Your task to perform on an android device: open wifi settings Image 0: 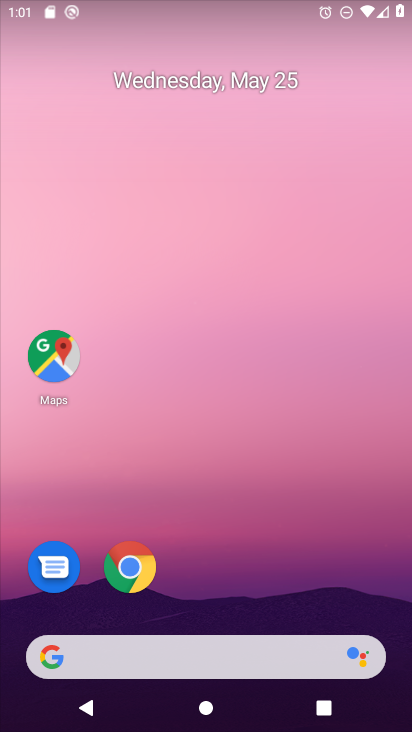
Step 0: drag from (380, 448) to (371, 153)
Your task to perform on an android device: open wifi settings Image 1: 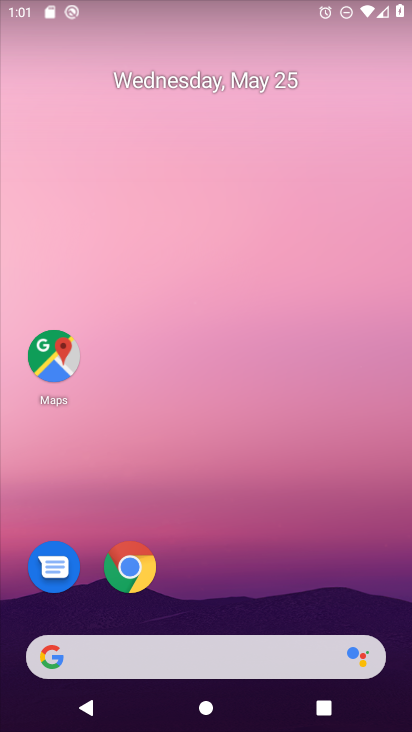
Step 1: drag from (407, 697) to (325, 42)
Your task to perform on an android device: open wifi settings Image 2: 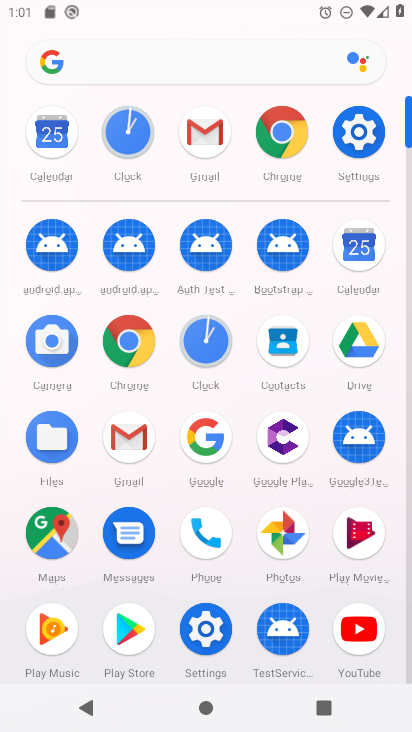
Step 2: click (368, 136)
Your task to perform on an android device: open wifi settings Image 3: 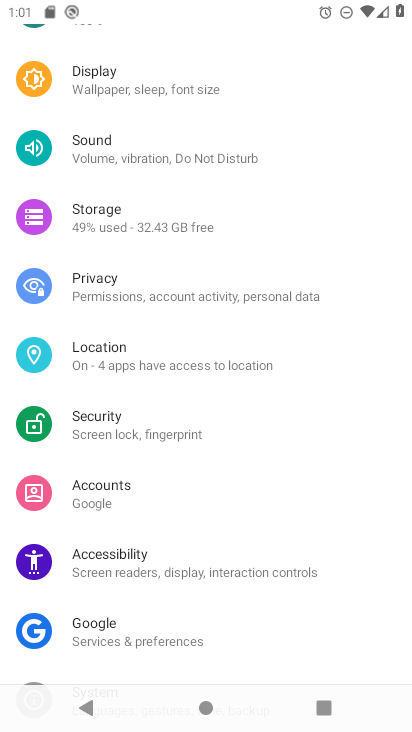
Step 3: drag from (290, 100) to (305, 556)
Your task to perform on an android device: open wifi settings Image 4: 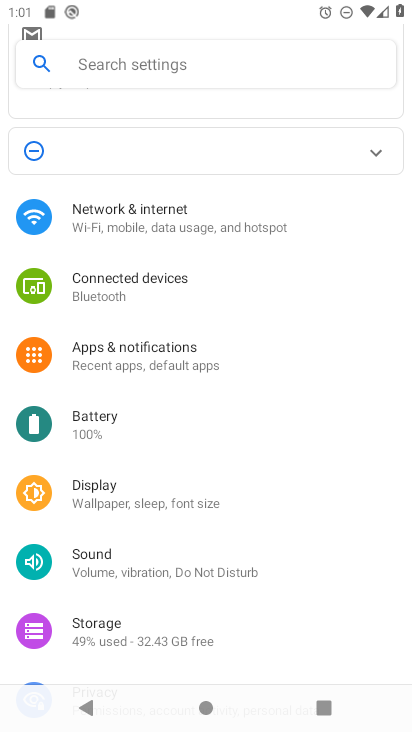
Step 4: drag from (291, 155) to (326, 539)
Your task to perform on an android device: open wifi settings Image 5: 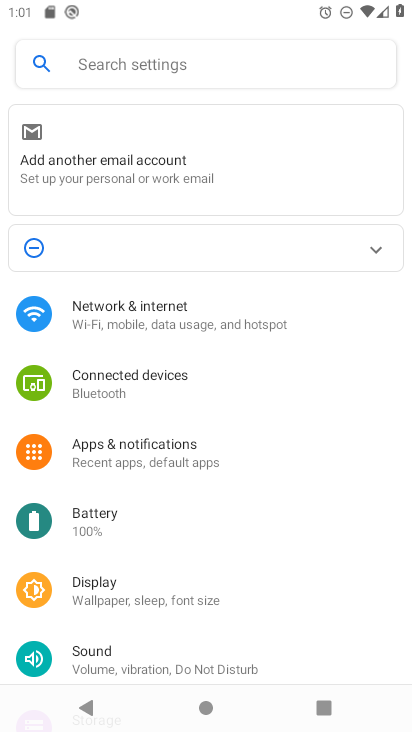
Step 5: click (128, 310)
Your task to perform on an android device: open wifi settings Image 6: 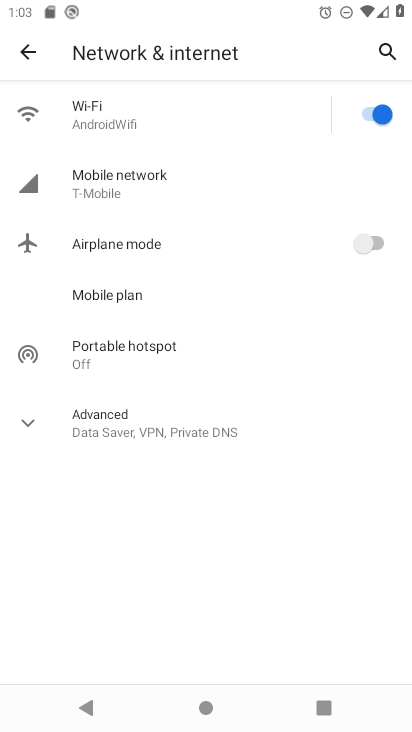
Step 6: click (102, 106)
Your task to perform on an android device: open wifi settings Image 7: 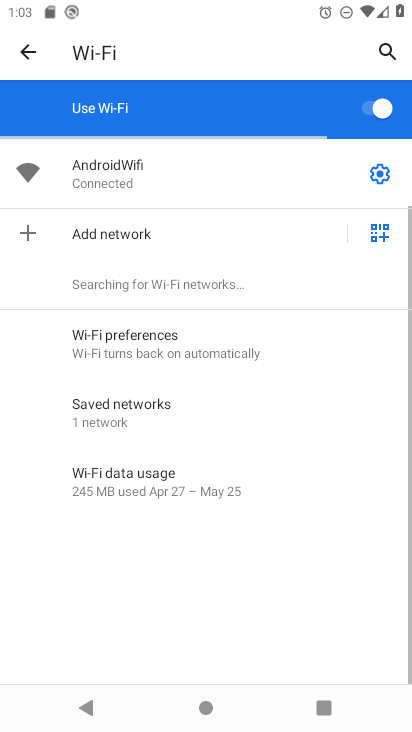
Step 7: click (377, 166)
Your task to perform on an android device: open wifi settings Image 8: 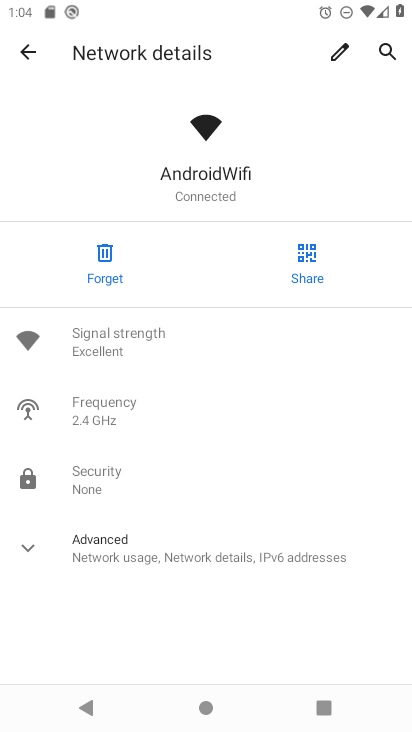
Step 8: task complete